Your task to perform on an android device: search for starred emails in the gmail app Image 0: 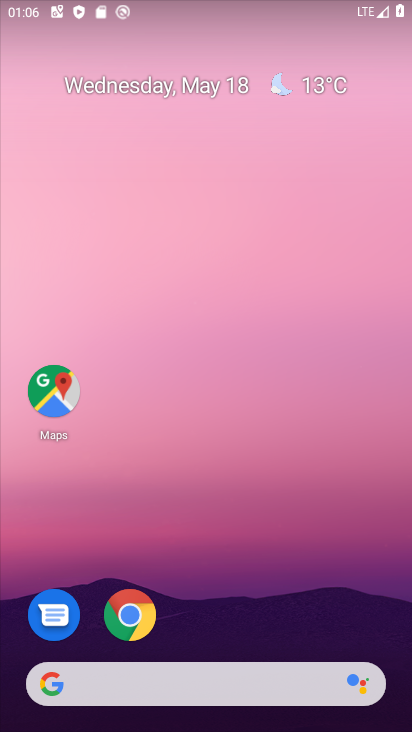
Step 0: press home button
Your task to perform on an android device: search for starred emails in the gmail app Image 1: 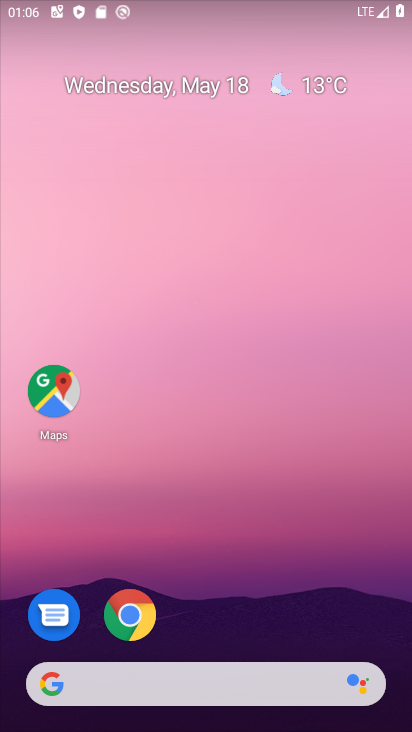
Step 1: drag from (147, 694) to (308, 238)
Your task to perform on an android device: search for starred emails in the gmail app Image 2: 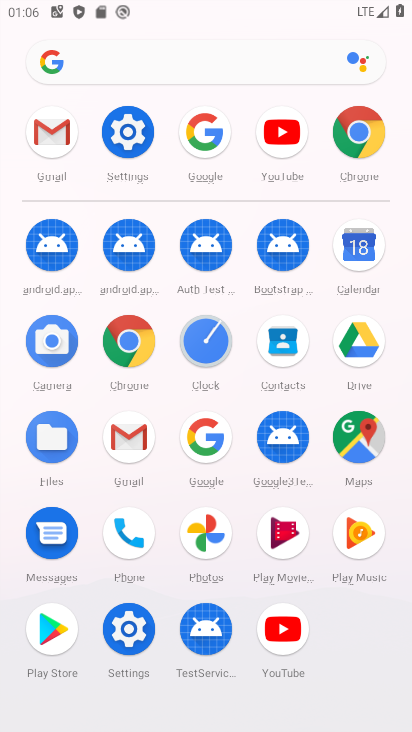
Step 2: click (55, 141)
Your task to perform on an android device: search for starred emails in the gmail app Image 3: 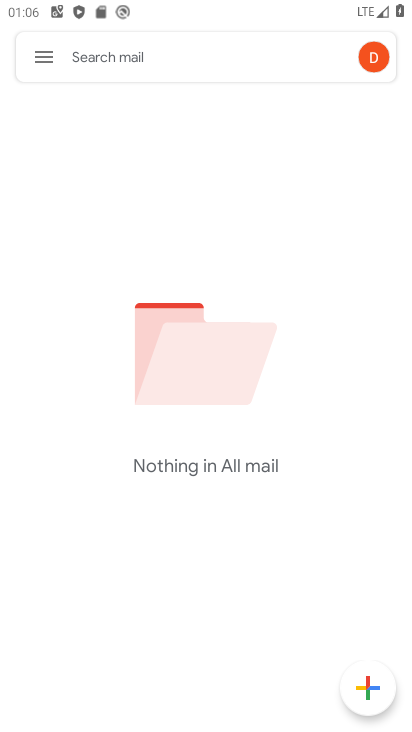
Step 3: click (47, 56)
Your task to perform on an android device: search for starred emails in the gmail app Image 4: 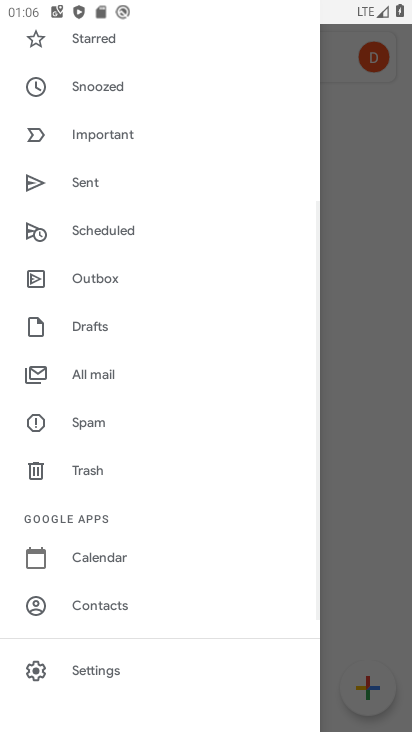
Step 4: drag from (208, 160) to (204, 392)
Your task to perform on an android device: search for starred emails in the gmail app Image 5: 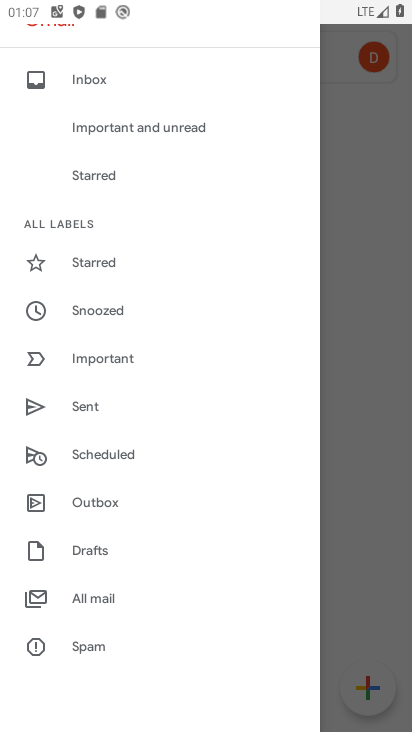
Step 5: click (93, 260)
Your task to perform on an android device: search for starred emails in the gmail app Image 6: 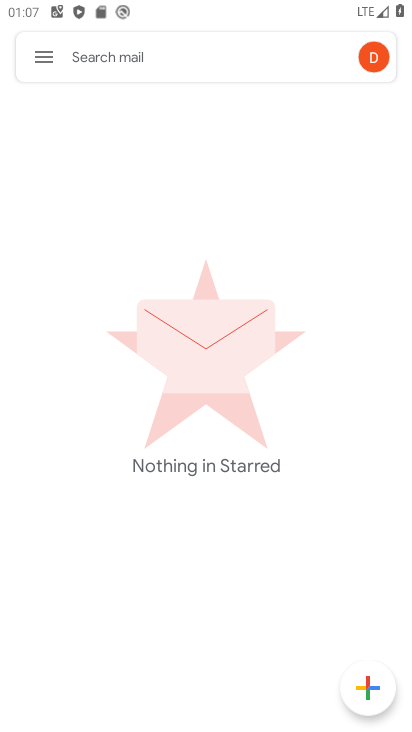
Step 6: task complete